Your task to perform on an android device: turn off picture-in-picture Image 0: 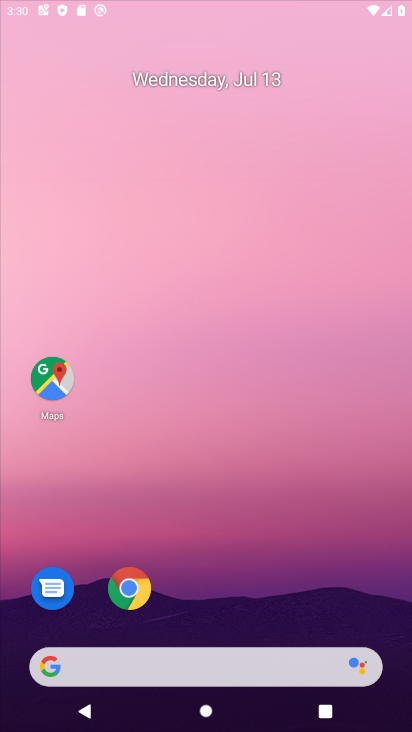
Step 0: press back button
Your task to perform on an android device: turn off picture-in-picture Image 1: 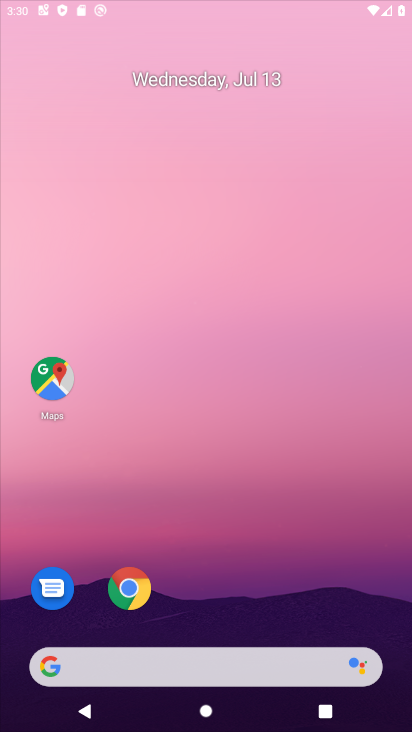
Step 1: click (178, 223)
Your task to perform on an android device: turn off picture-in-picture Image 2: 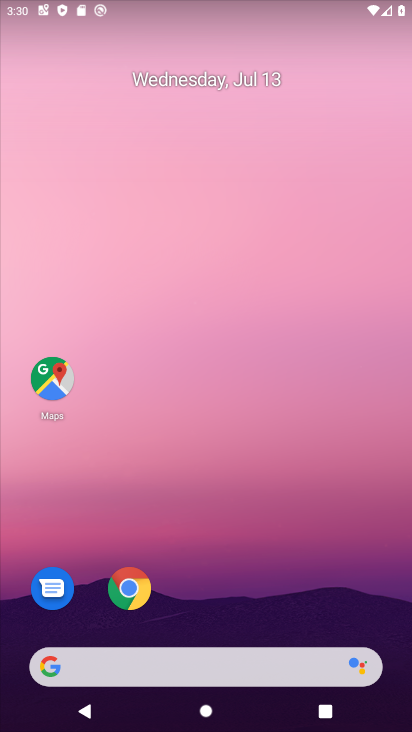
Step 2: drag from (279, 609) to (205, 177)
Your task to perform on an android device: turn off picture-in-picture Image 3: 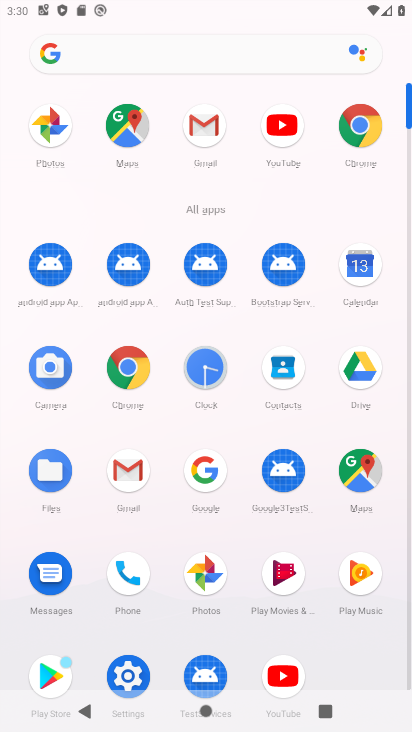
Step 3: press back button
Your task to perform on an android device: turn off picture-in-picture Image 4: 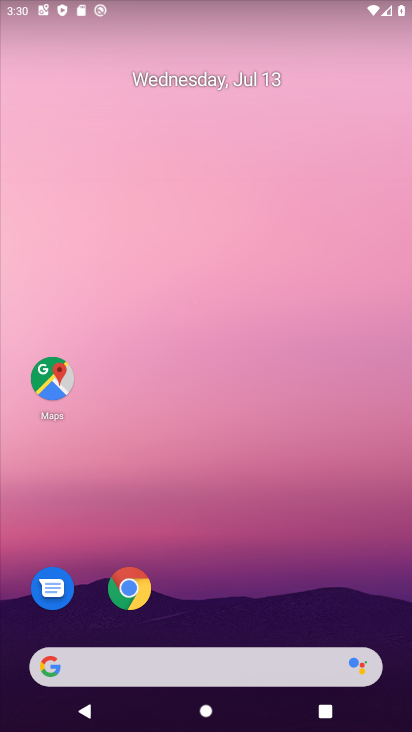
Step 4: drag from (232, 647) to (157, 121)
Your task to perform on an android device: turn off picture-in-picture Image 5: 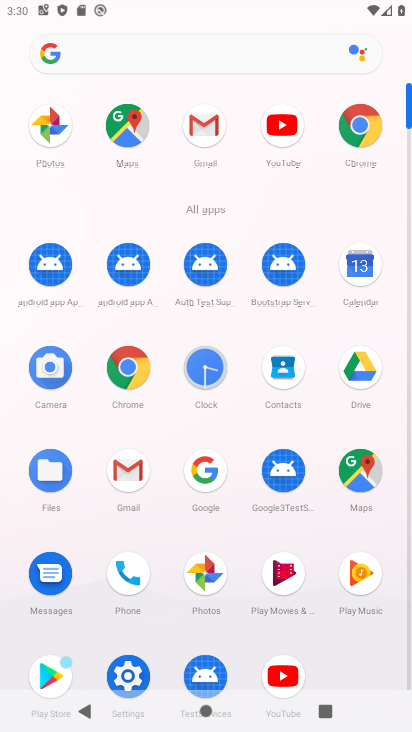
Step 5: click (361, 119)
Your task to perform on an android device: turn off picture-in-picture Image 6: 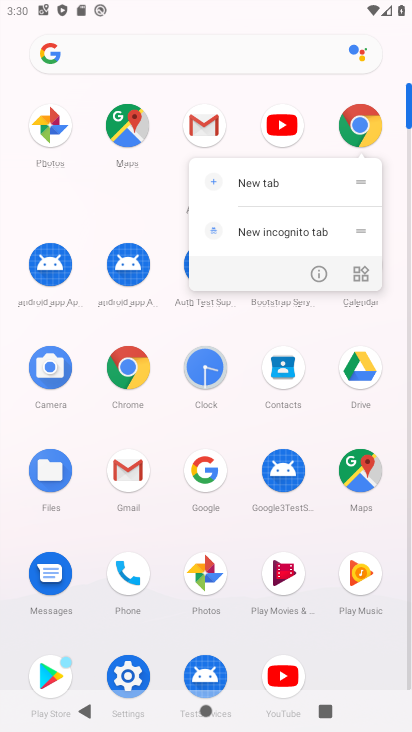
Step 6: click (318, 273)
Your task to perform on an android device: turn off picture-in-picture Image 7: 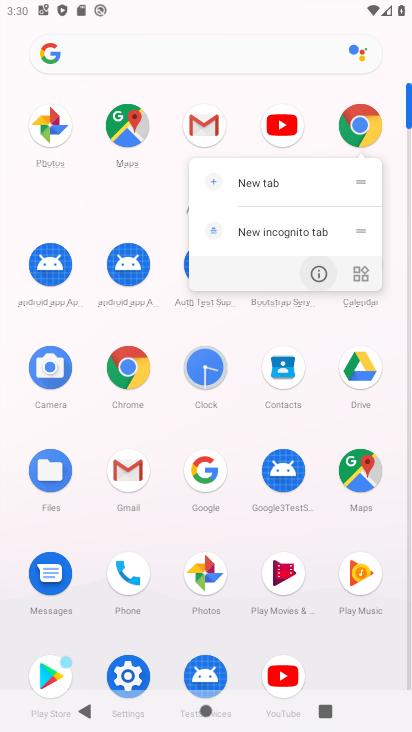
Step 7: click (318, 273)
Your task to perform on an android device: turn off picture-in-picture Image 8: 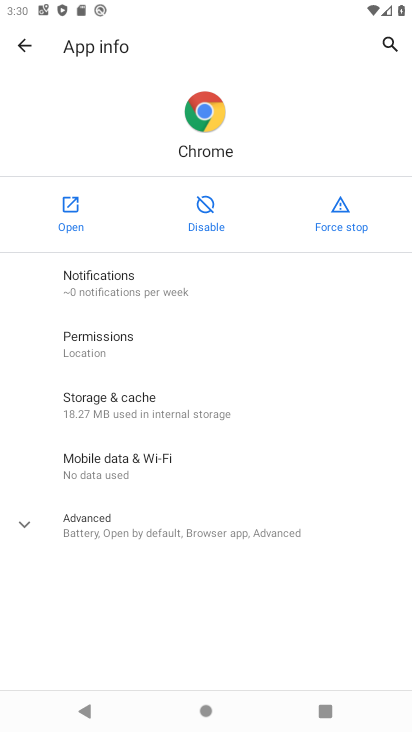
Step 8: click (92, 518)
Your task to perform on an android device: turn off picture-in-picture Image 9: 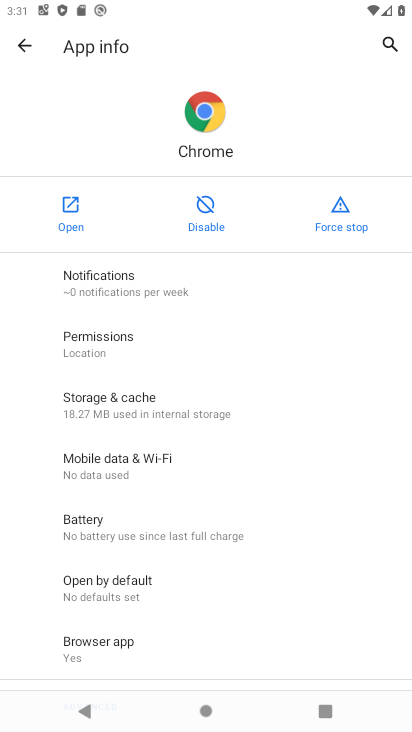
Step 9: drag from (135, 618) to (125, 214)
Your task to perform on an android device: turn off picture-in-picture Image 10: 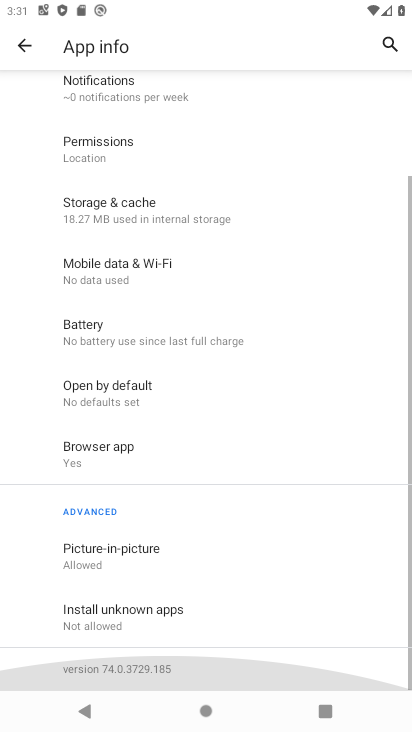
Step 10: drag from (142, 599) to (157, 342)
Your task to perform on an android device: turn off picture-in-picture Image 11: 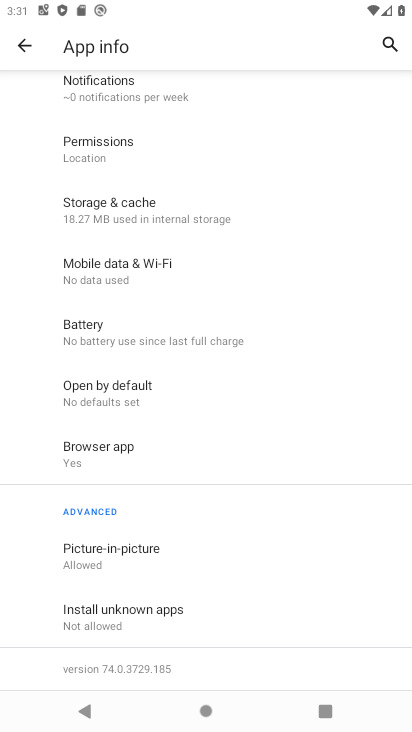
Step 11: click (98, 555)
Your task to perform on an android device: turn off picture-in-picture Image 12: 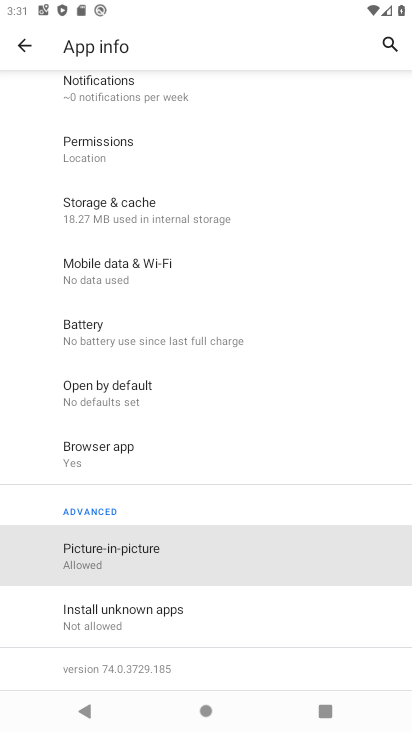
Step 12: click (98, 555)
Your task to perform on an android device: turn off picture-in-picture Image 13: 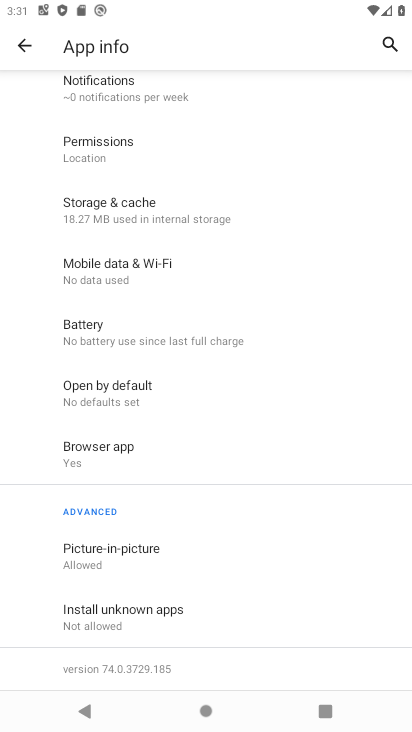
Step 13: click (98, 555)
Your task to perform on an android device: turn off picture-in-picture Image 14: 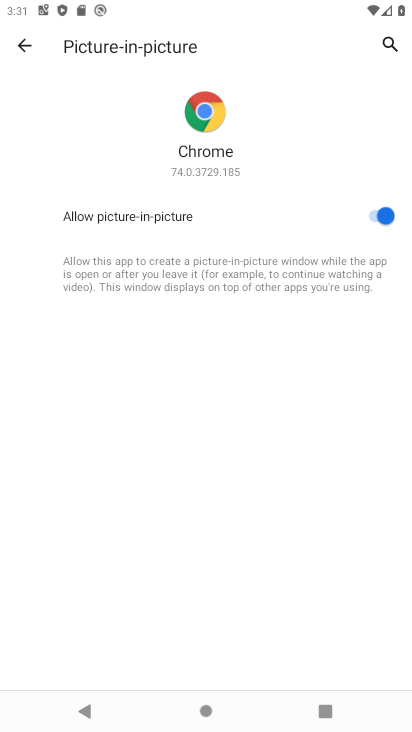
Step 14: click (380, 214)
Your task to perform on an android device: turn off picture-in-picture Image 15: 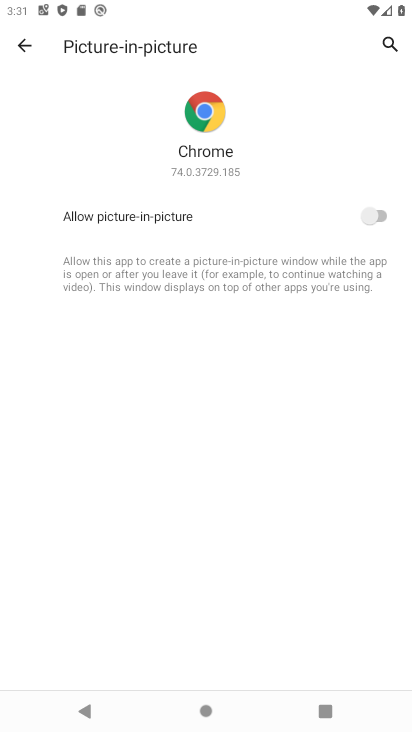
Step 15: task complete